Your task to perform on an android device: Open wifi settings Image 0: 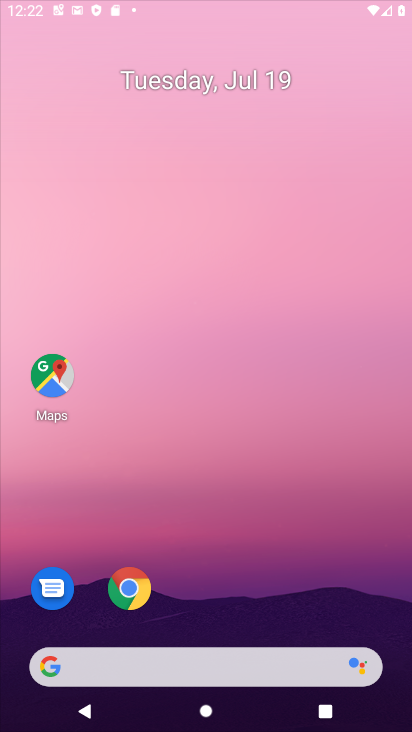
Step 0: click (263, 77)
Your task to perform on an android device: Open wifi settings Image 1: 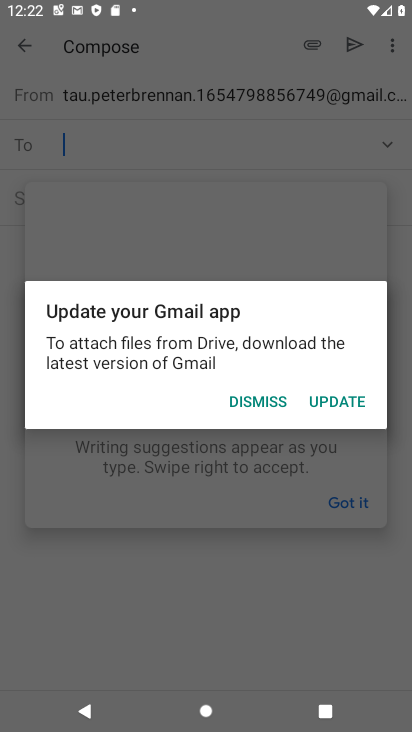
Step 1: press home button
Your task to perform on an android device: Open wifi settings Image 2: 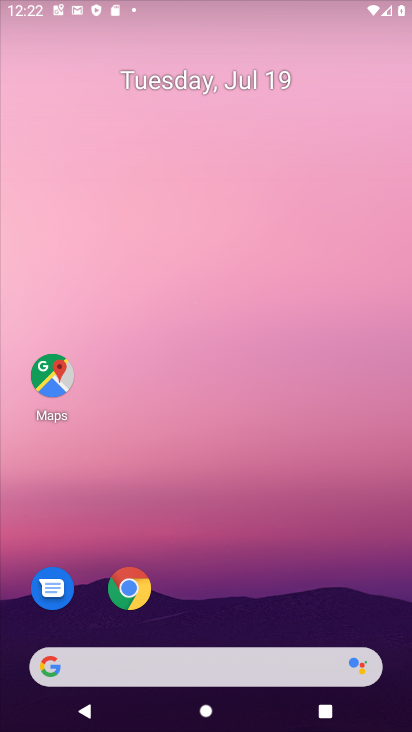
Step 2: drag from (388, 641) to (251, 128)
Your task to perform on an android device: Open wifi settings Image 3: 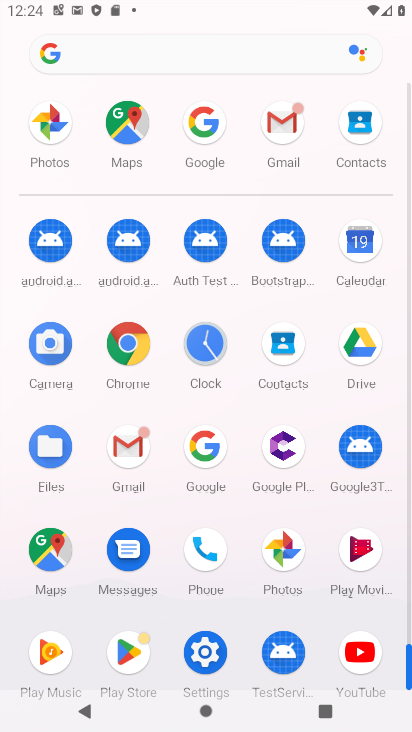
Step 3: click (208, 665)
Your task to perform on an android device: Open wifi settings Image 4: 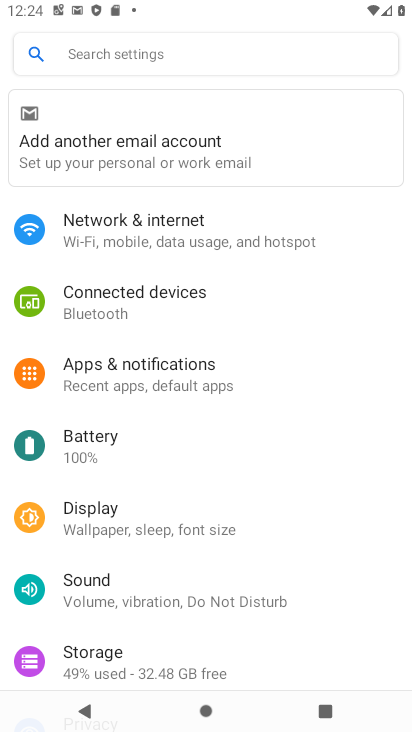
Step 4: click (138, 248)
Your task to perform on an android device: Open wifi settings Image 5: 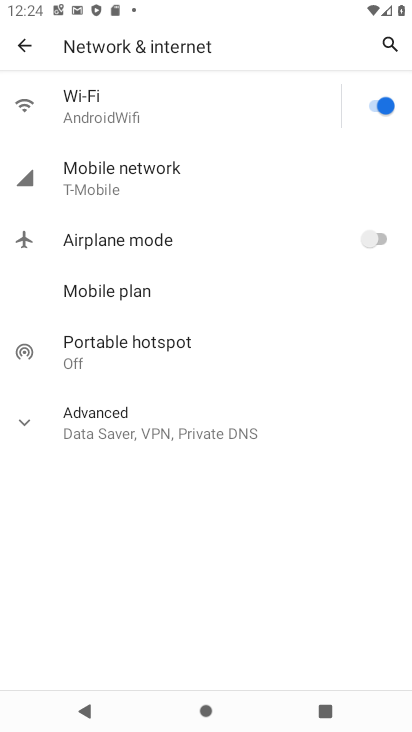
Step 5: click (135, 116)
Your task to perform on an android device: Open wifi settings Image 6: 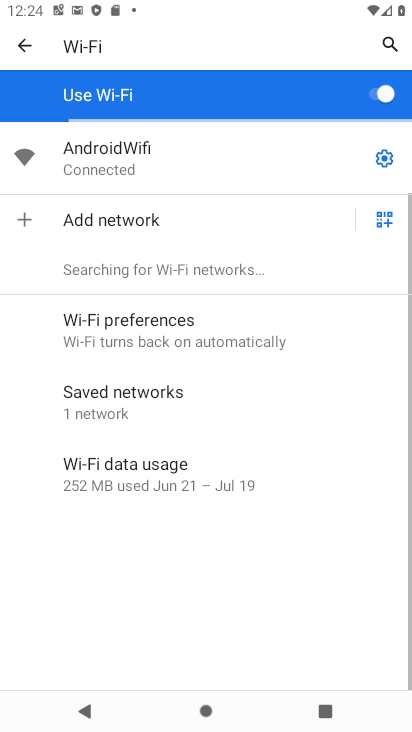
Step 6: task complete